Your task to perform on an android device: Open location settings Image 0: 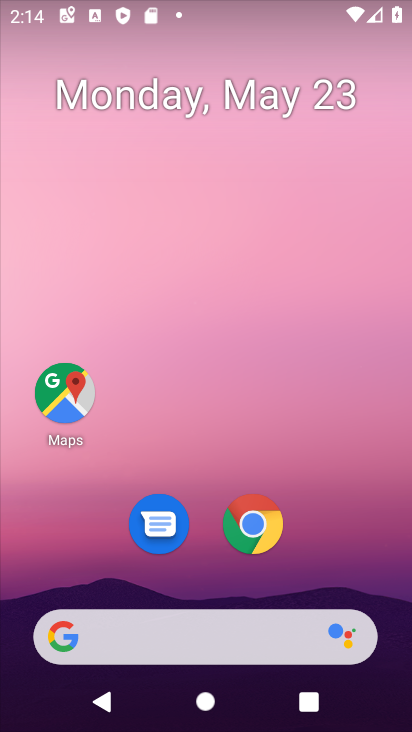
Step 0: drag from (194, 470) to (193, 1)
Your task to perform on an android device: Open location settings Image 1: 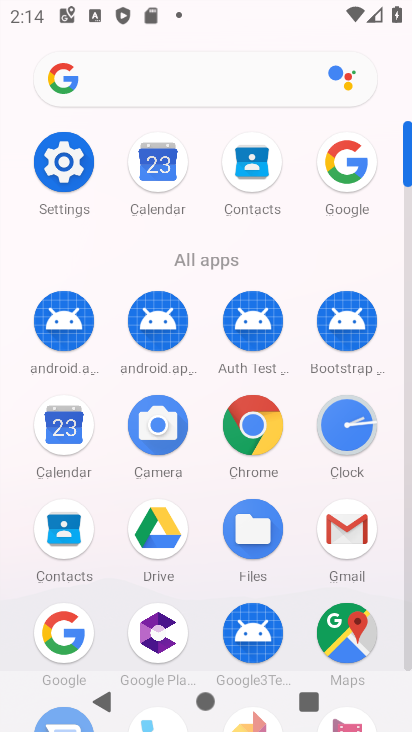
Step 1: click (74, 162)
Your task to perform on an android device: Open location settings Image 2: 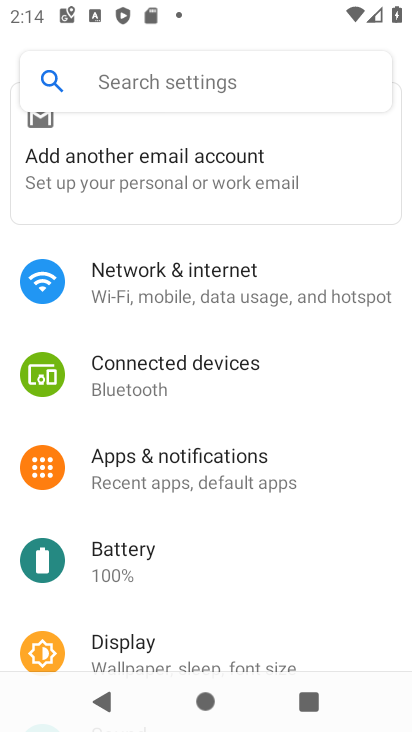
Step 2: drag from (220, 610) to (270, 32)
Your task to perform on an android device: Open location settings Image 3: 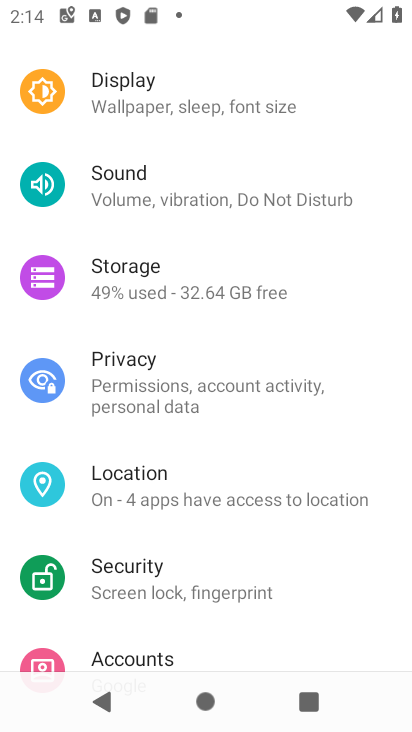
Step 3: click (225, 480)
Your task to perform on an android device: Open location settings Image 4: 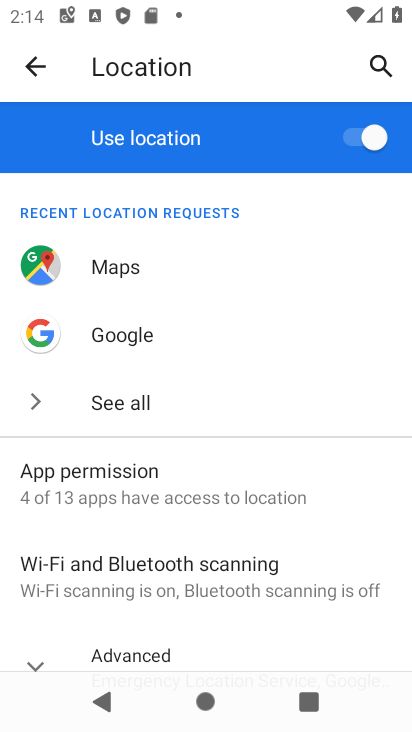
Step 4: click (225, 480)
Your task to perform on an android device: Open location settings Image 5: 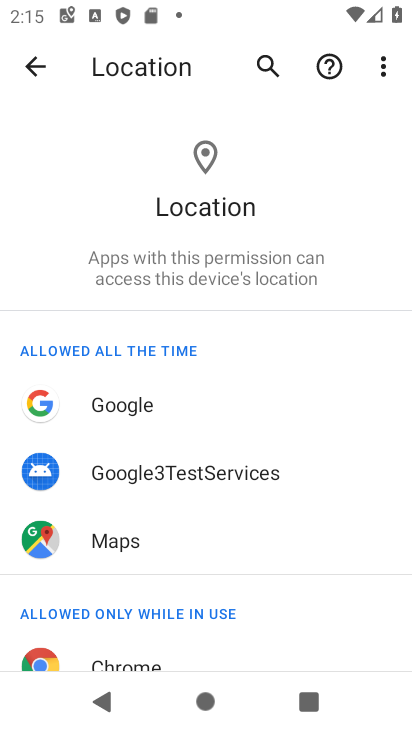
Step 5: task complete